Your task to perform on an android device: Go to Google Image 0: 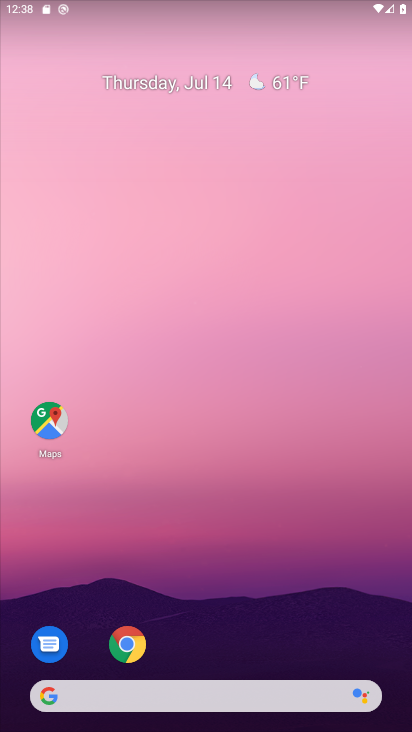
Step 0: drag from (282, 577) to (266, 94)
Your task to perform on an android device: Go to Google Image 1: 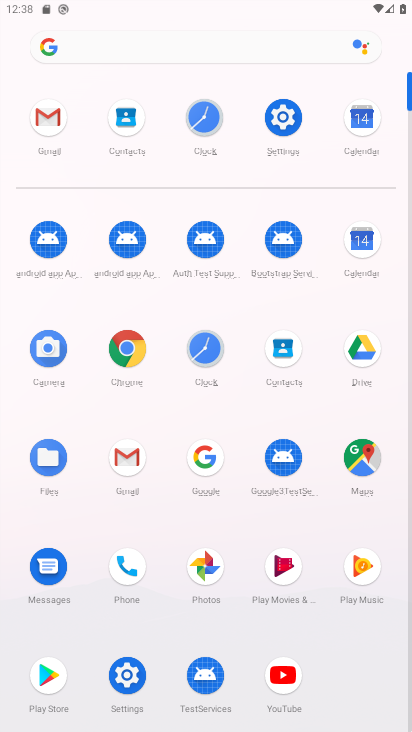
Step 1: click (203, 472)
Your task to perform on an android device: Go to Google Image 2: 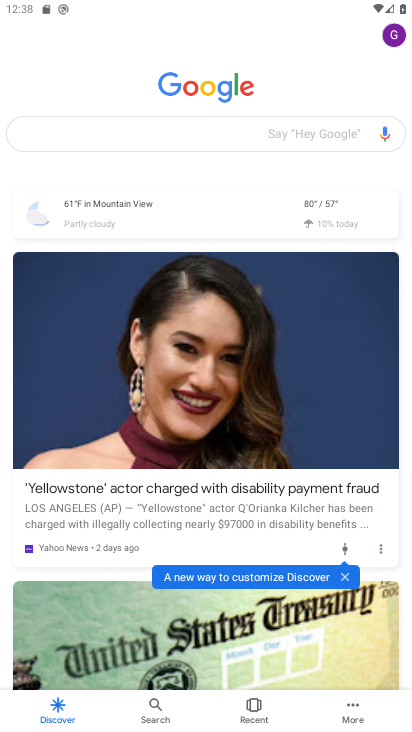
Step 2: task complete